Your task to perform on an android device: Search for Italian restaurants on Maps Image 0: 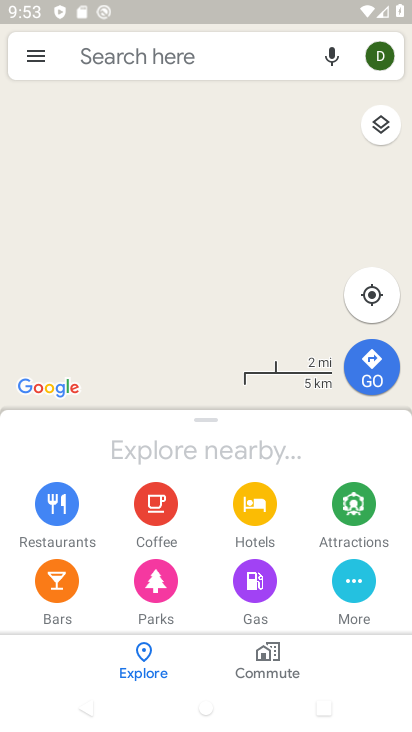
Step 0: press home button
Your task to perform on an android device: Search for Italian restaurants on Maps Image 1: 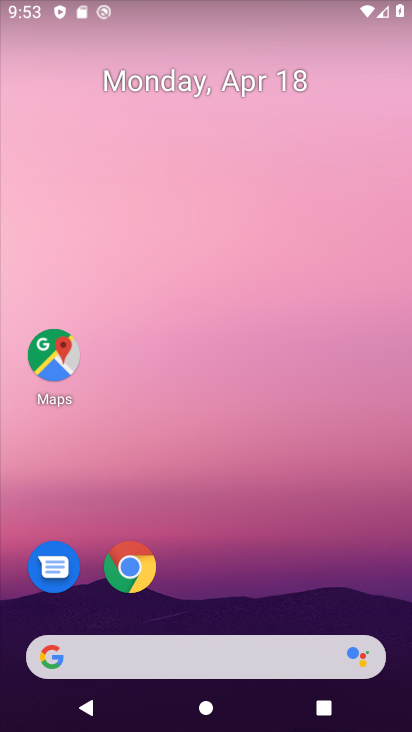
Step 1: click (68, 369)
Your task to perform on an android device: Search for Italian restaurants on Maps Image 2: 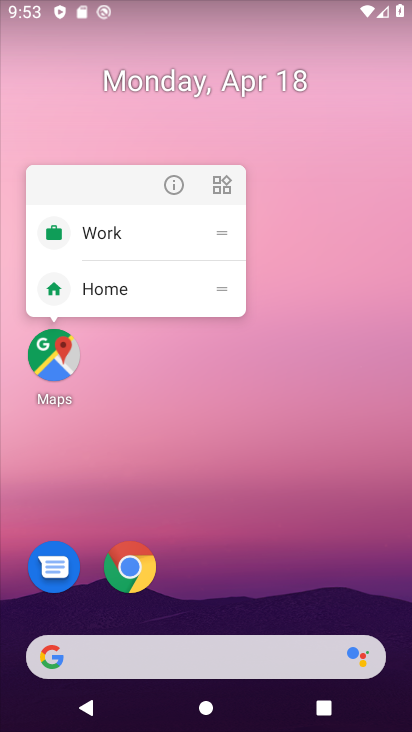
Step 2: click (65, 359)
Your task to perform on an android device: Search for Italian restaurants on Maps Image 3: 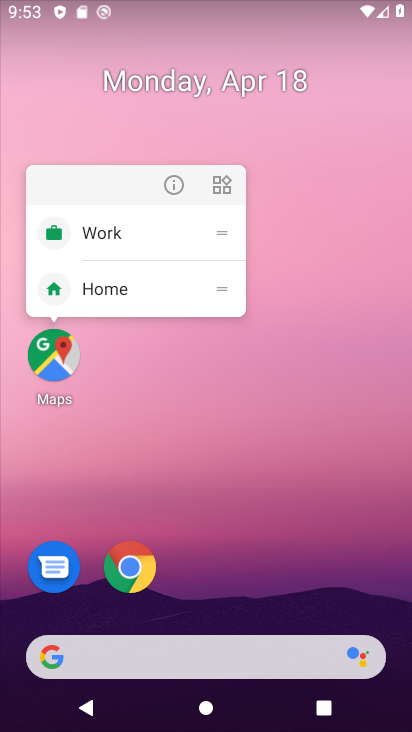
Step 3: click (57, 353)
Your task to perform on an android device: Search for Italian restaurants on Maps Image 4: 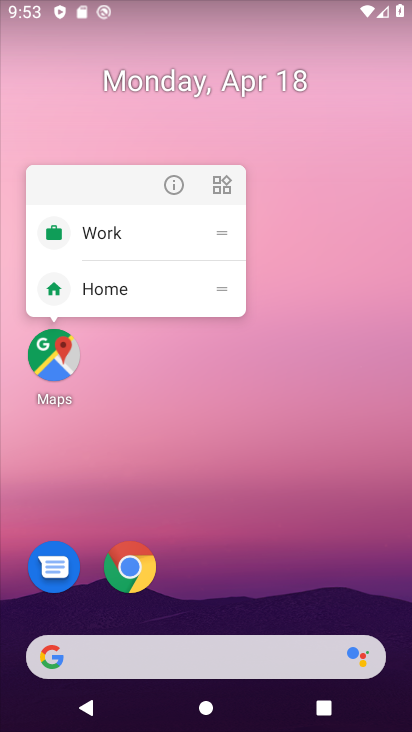
Step 4: click (57, 353)
Your task to perform on an android device: Search for Italian restaurants on Maps Image 5: 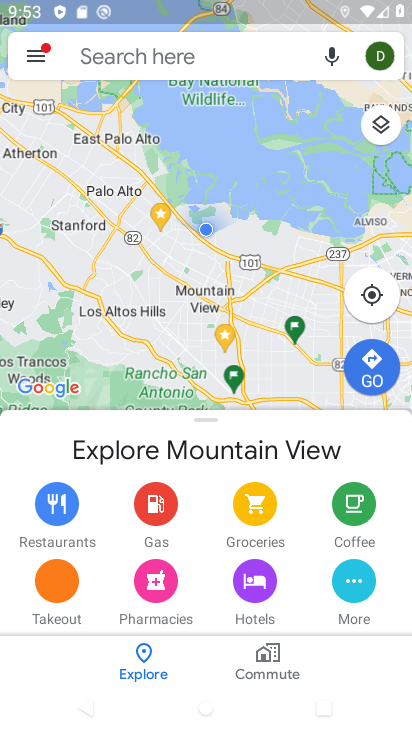
Step 5: click (185, 67)
Your task to perform on an android device: Search for Italian restaurants on Maps Image 6: 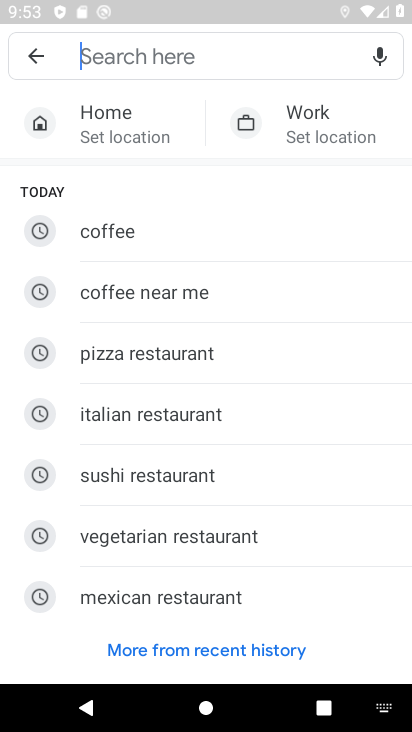
Step 6: click (111, 410)
Your task to perform on an android device: Search for Italian restaurants on Maps Image 7: 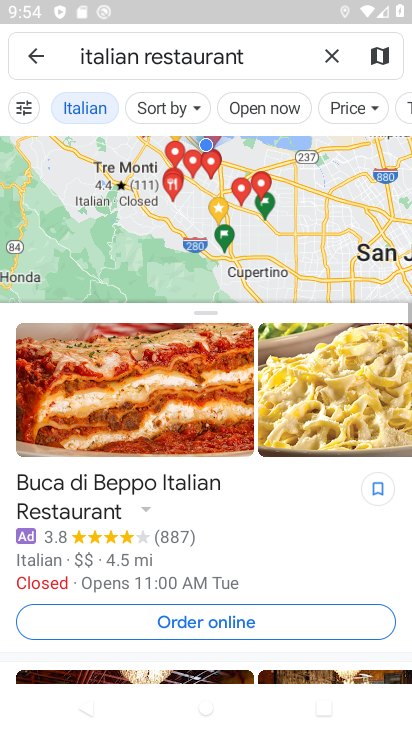
Step 7: task complete